Your task to perform on an android device: Search for logitech g pro on costco, select the first entry, and add it to the cart. Image 0: 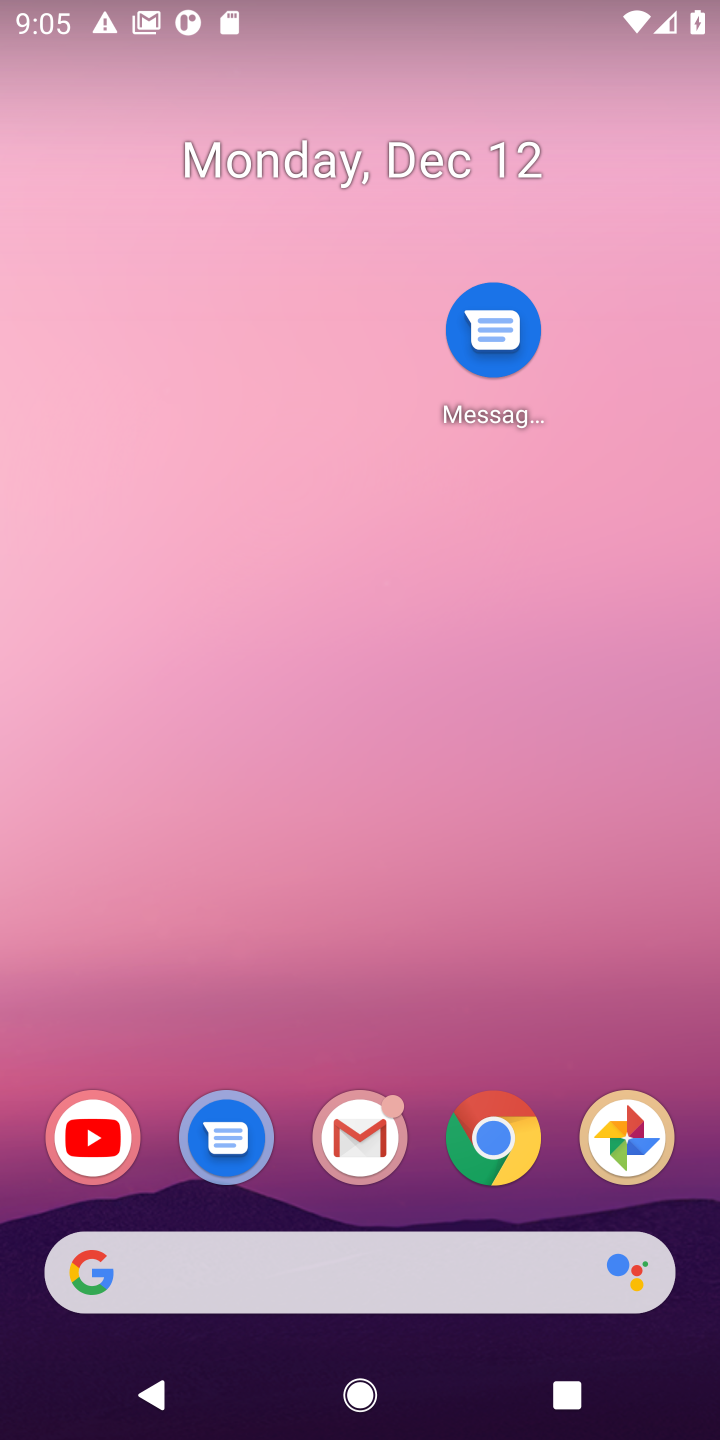
Step 0: drag from (352, 1282) to (511, 124)
Your task to perform on an android device: Search for logitech g pro on costco, select the first entry, and add it to the cart. Image 1: 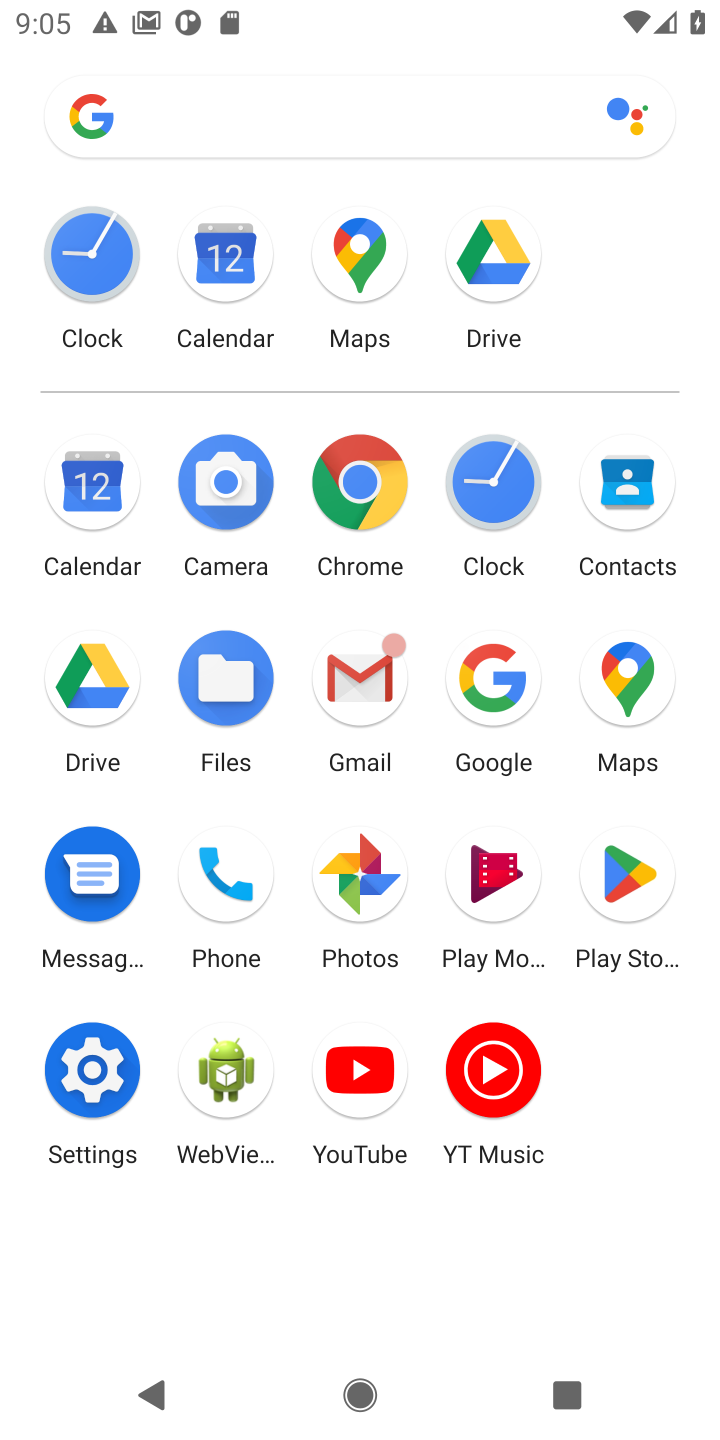
Step 1: click (485, 685)
Your task to perform on an android device: Search for logitech g pro on costco, select the first entry, and add it to the cart. Image 2: 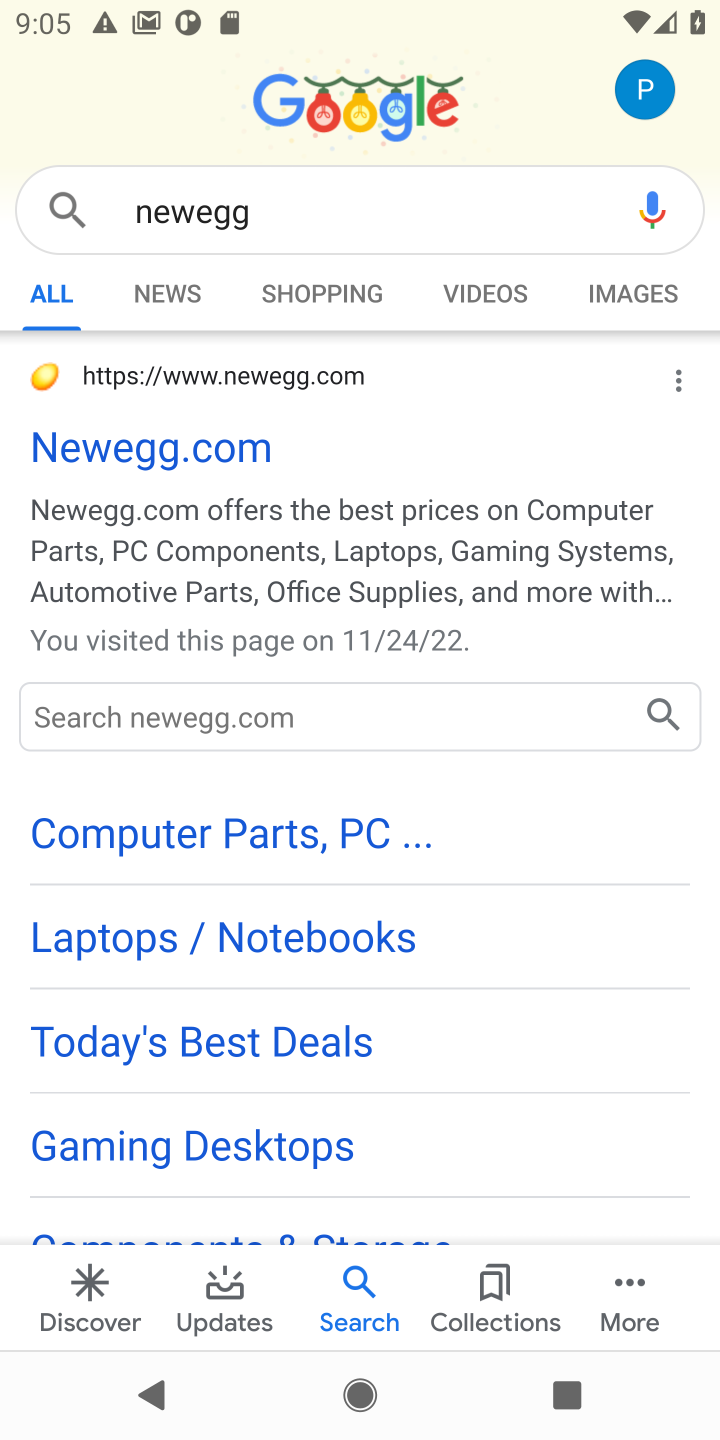
Step 2: click (241, 189)
Your task to perform on an android device: Search for logitech g pro on costco, select the first entry, and add it to the cart. Image 3: 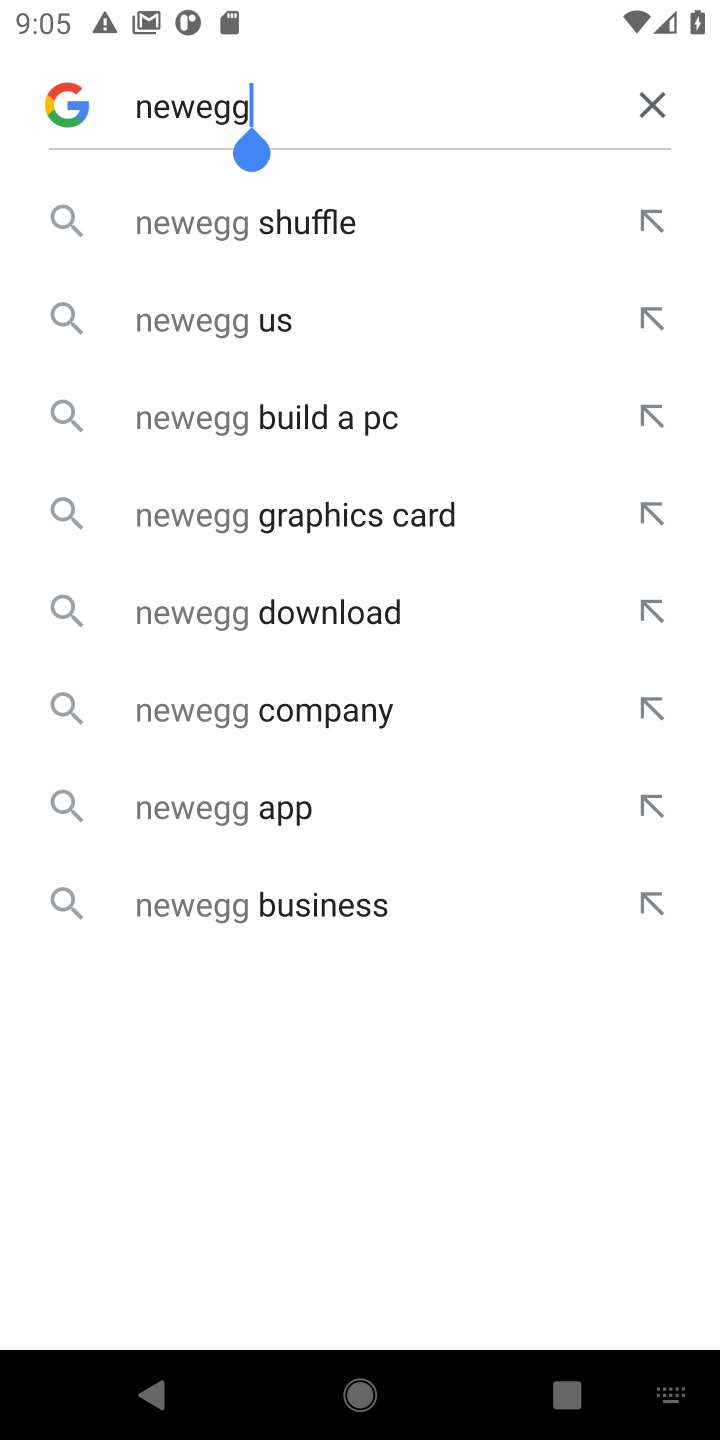
Step 3: click (664, 110)
Your task to perform on an android device: Search for logitech g pro on costco, select the first entry, and add it to the cart. Image 4: 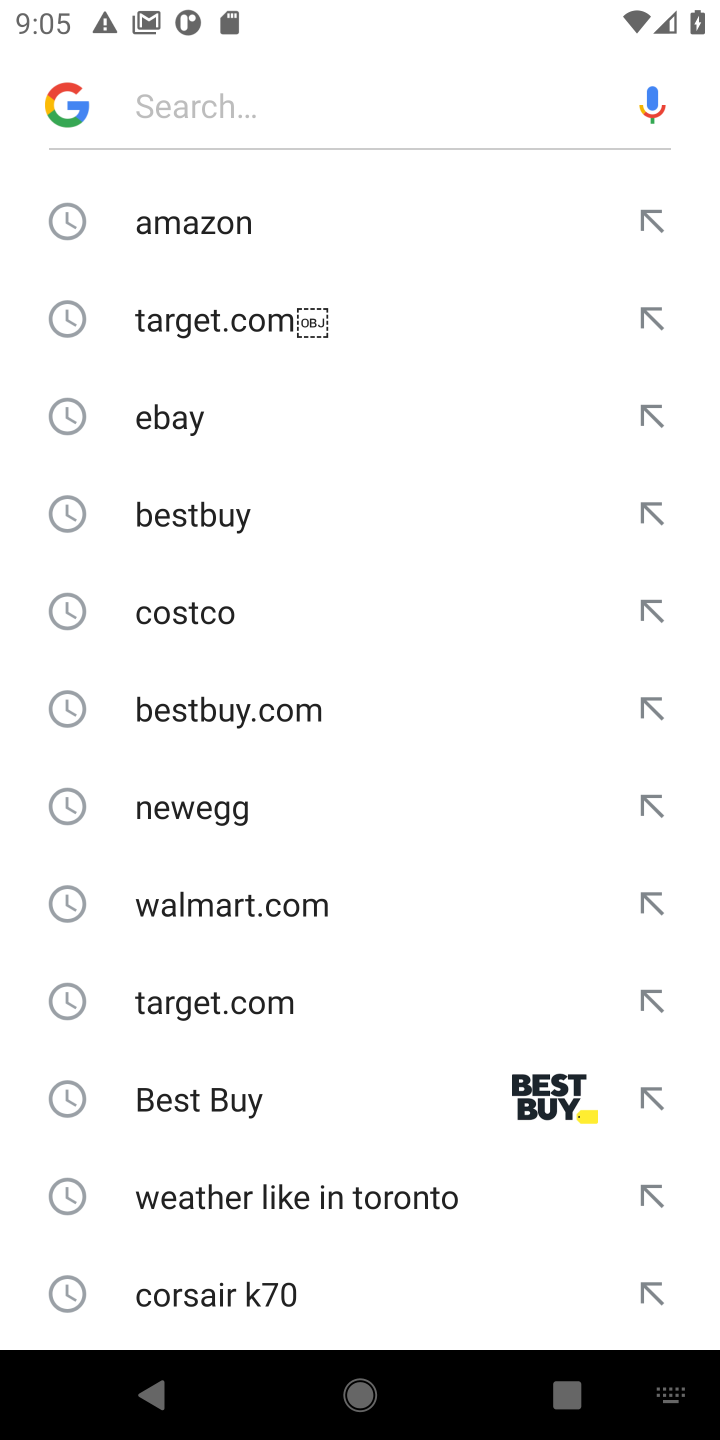
Step 4: click (187, 611)
Your task to perform on an android device: Search for logitech g pro on costco, select the first entry, and add it to the cart. Image 5: 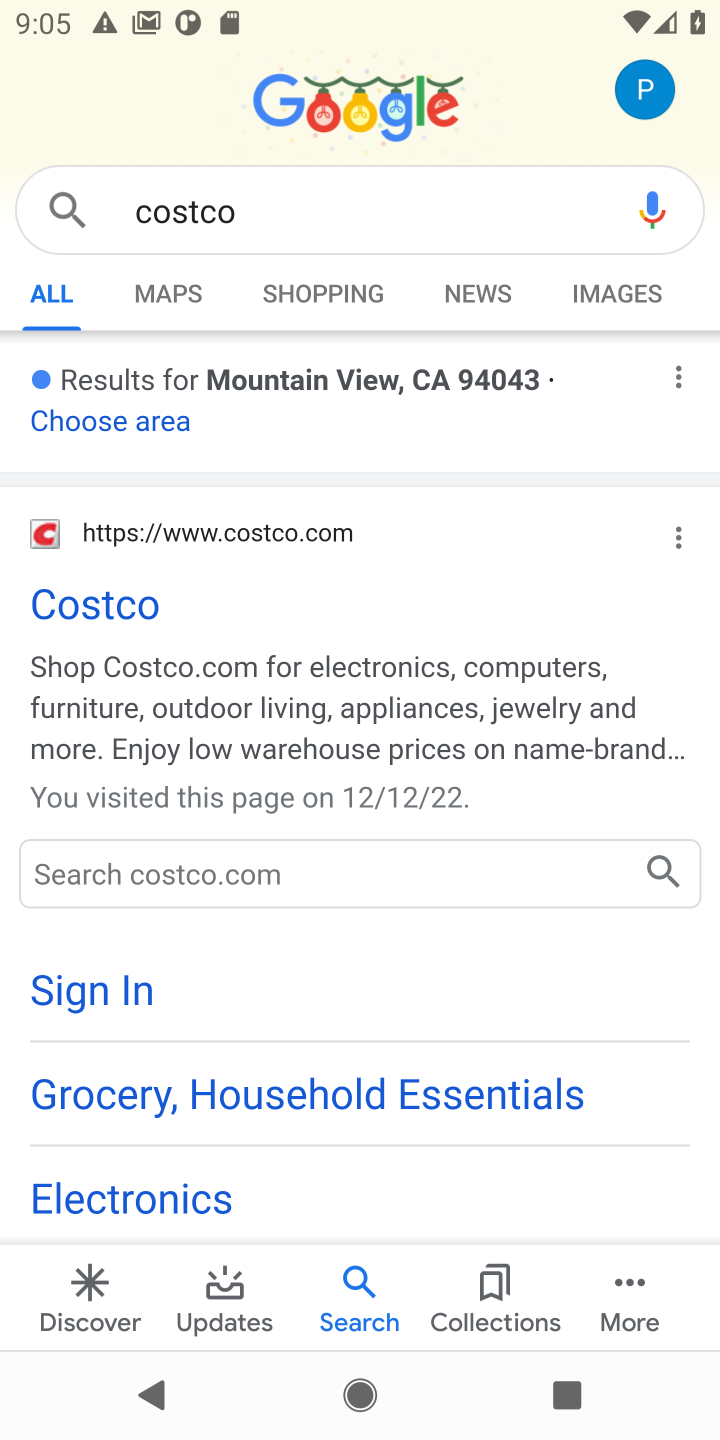
Step 5: click (103, 599)
Your task to perform on an android device: Search for logitech g pro on costco, select the first entry, and add it to the cart. Image 6: 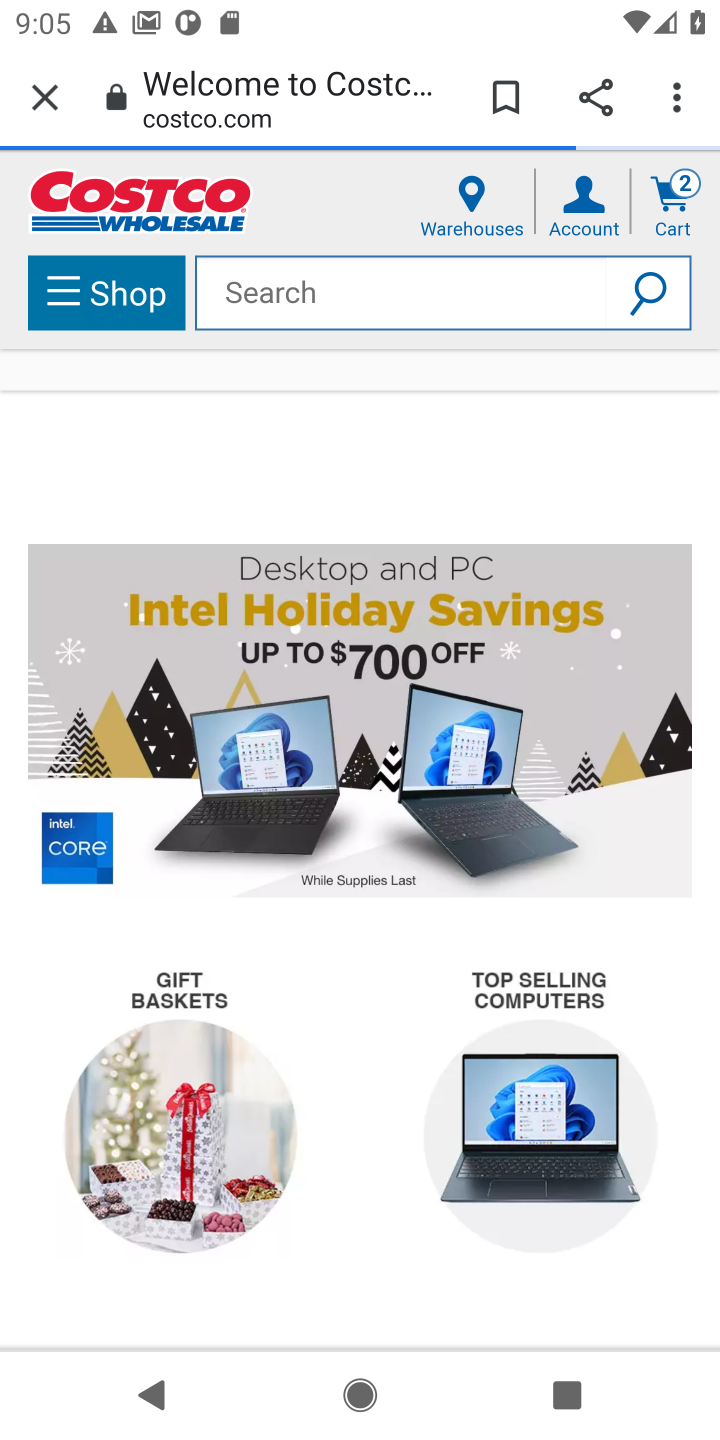
Step 6: click (302, 275)
Your task to perform on an android device: Search for logitech g pro on costco, select the first entry, and add it to the cart. Image 7: 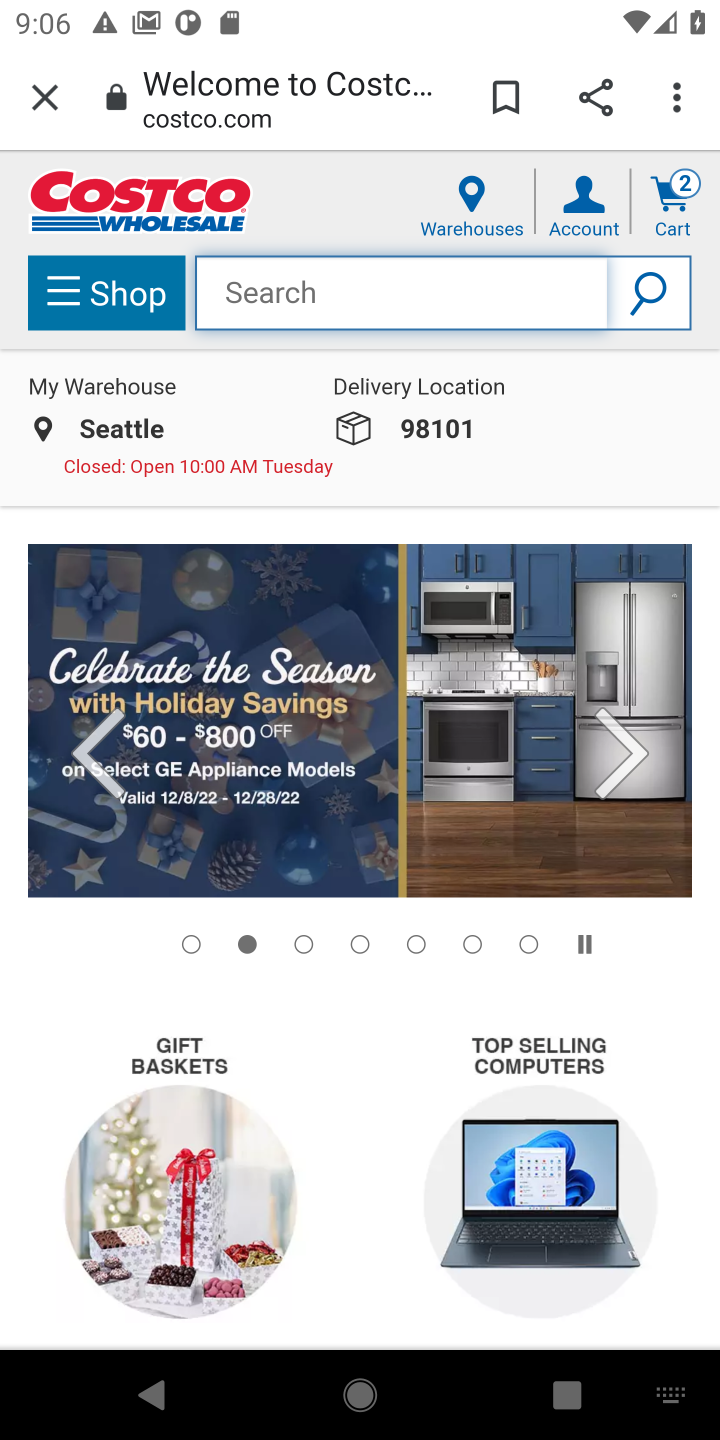
Step 7: type "logitech g pro"
Your task to perform on an android device: Search for logitech g pro on costco, select the first entry, and add it to the cart. Image 8: 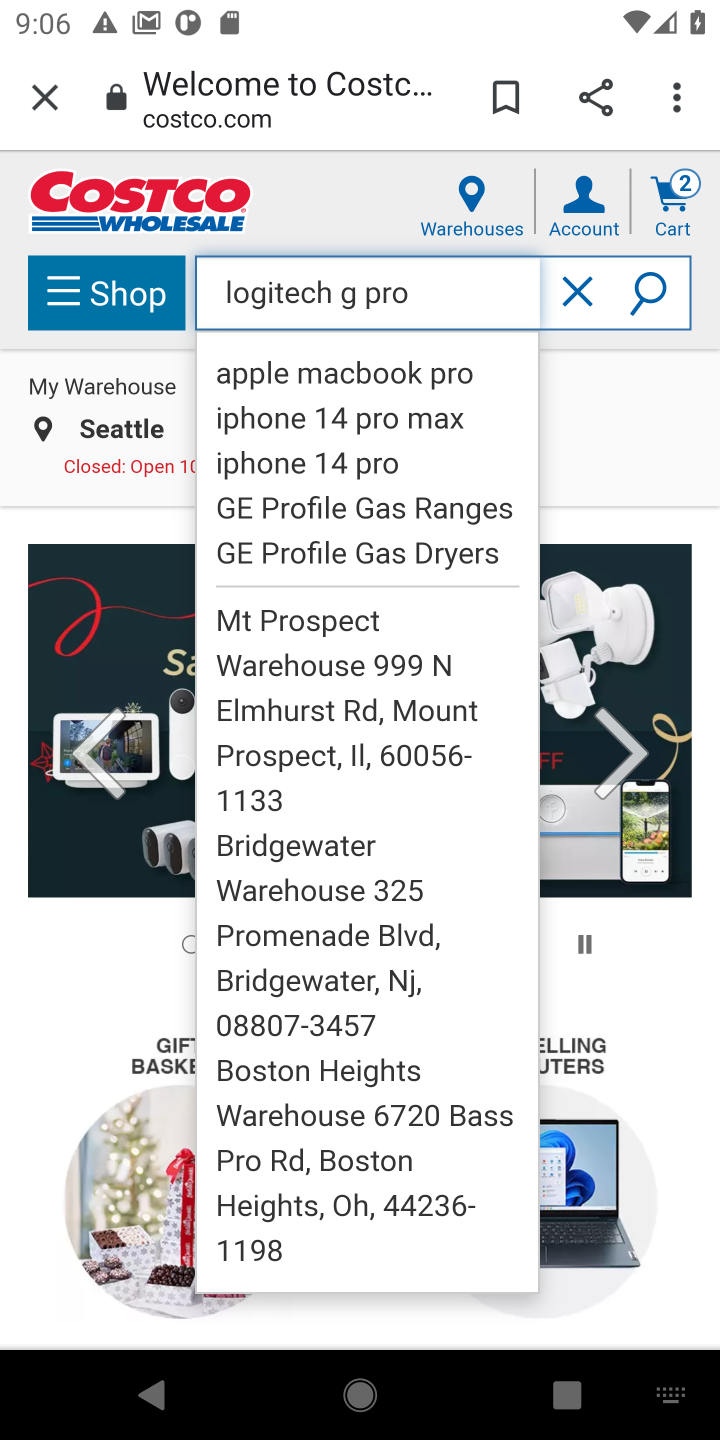
Step 8: click (630, 296)
Your task to perform on an android device: Search for logitech g pro on costco, select the first entry, and add it to the cart. Image 9: 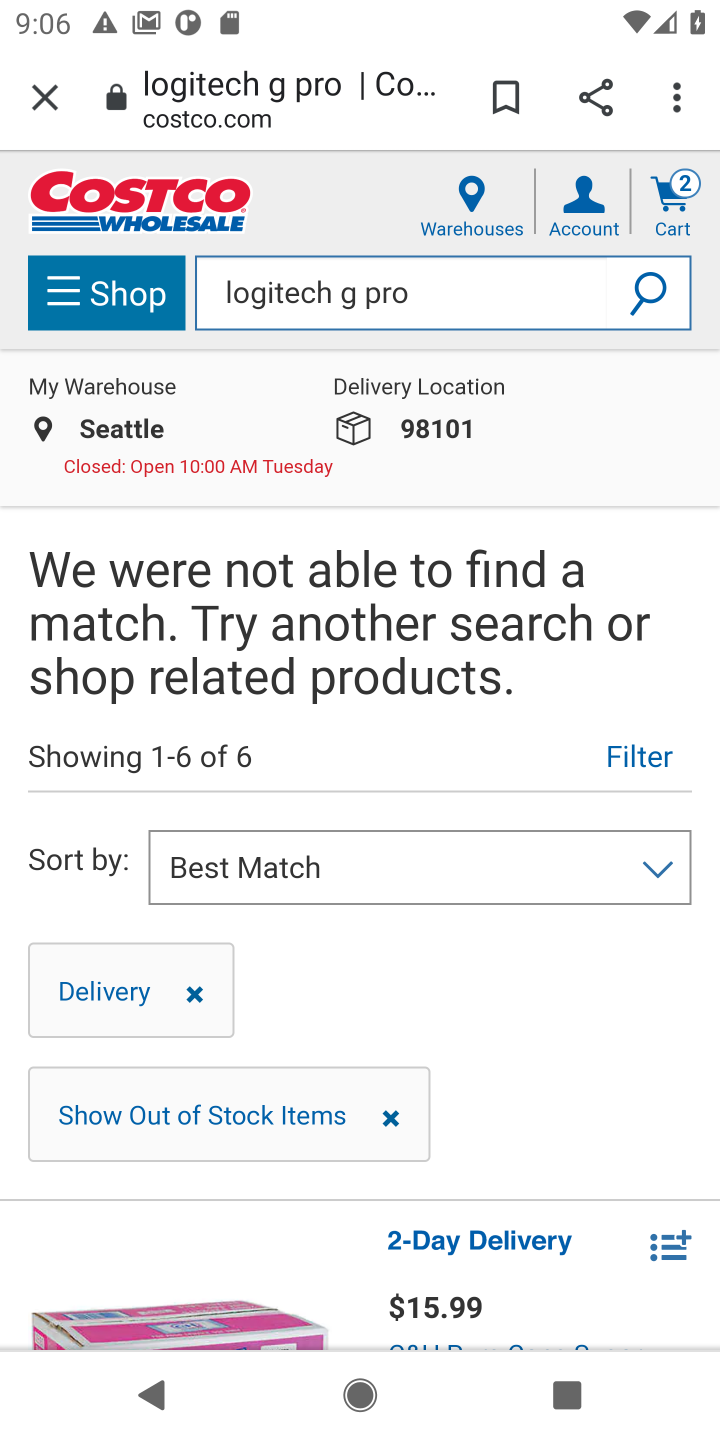
Step 9: drag from (424, 1089) to (462, 486)
Your task to perform on an android device: Search for logitech g pro on costco, select the first entry, and add it to the cart. Image 10: 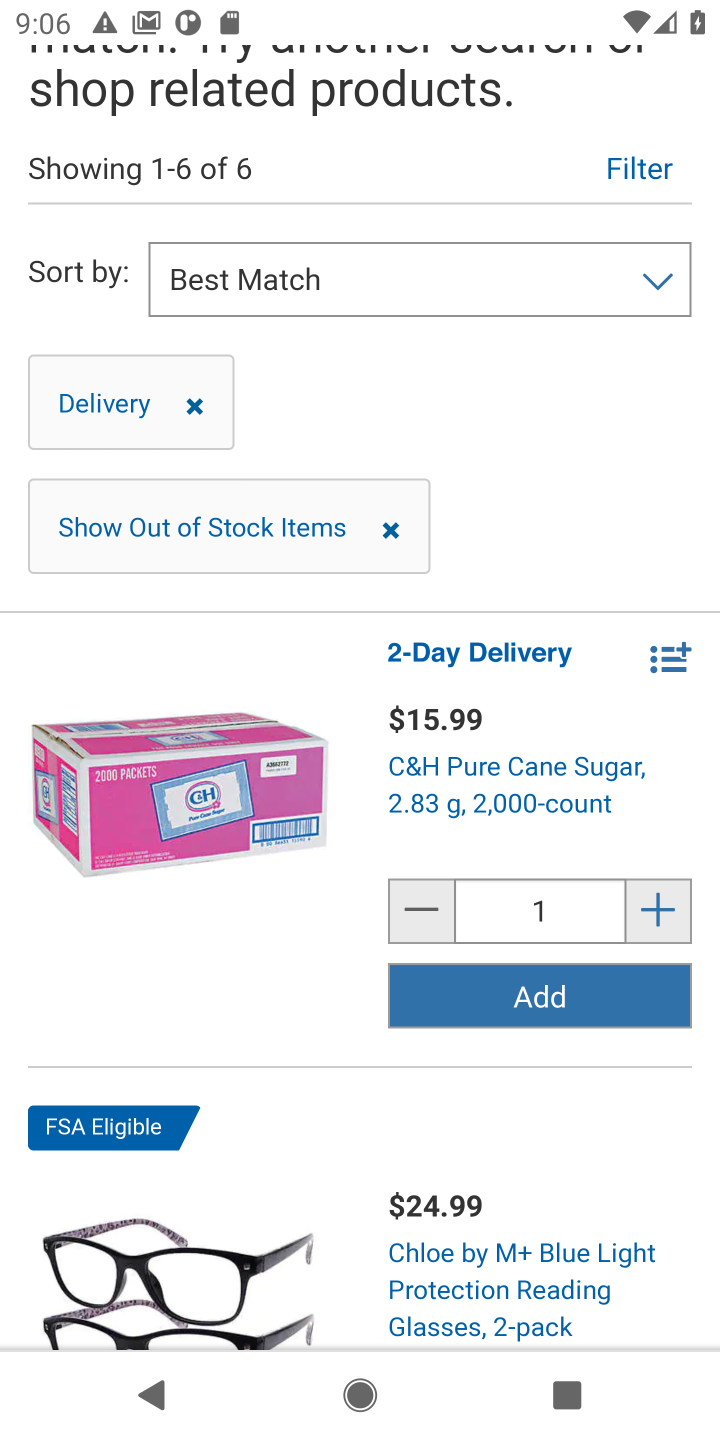
Step 10: click (547, 1005)
Your task to perform on an android device: Search for logitech g pro on costco, select the first entry, and add it to the cart. Image 11: 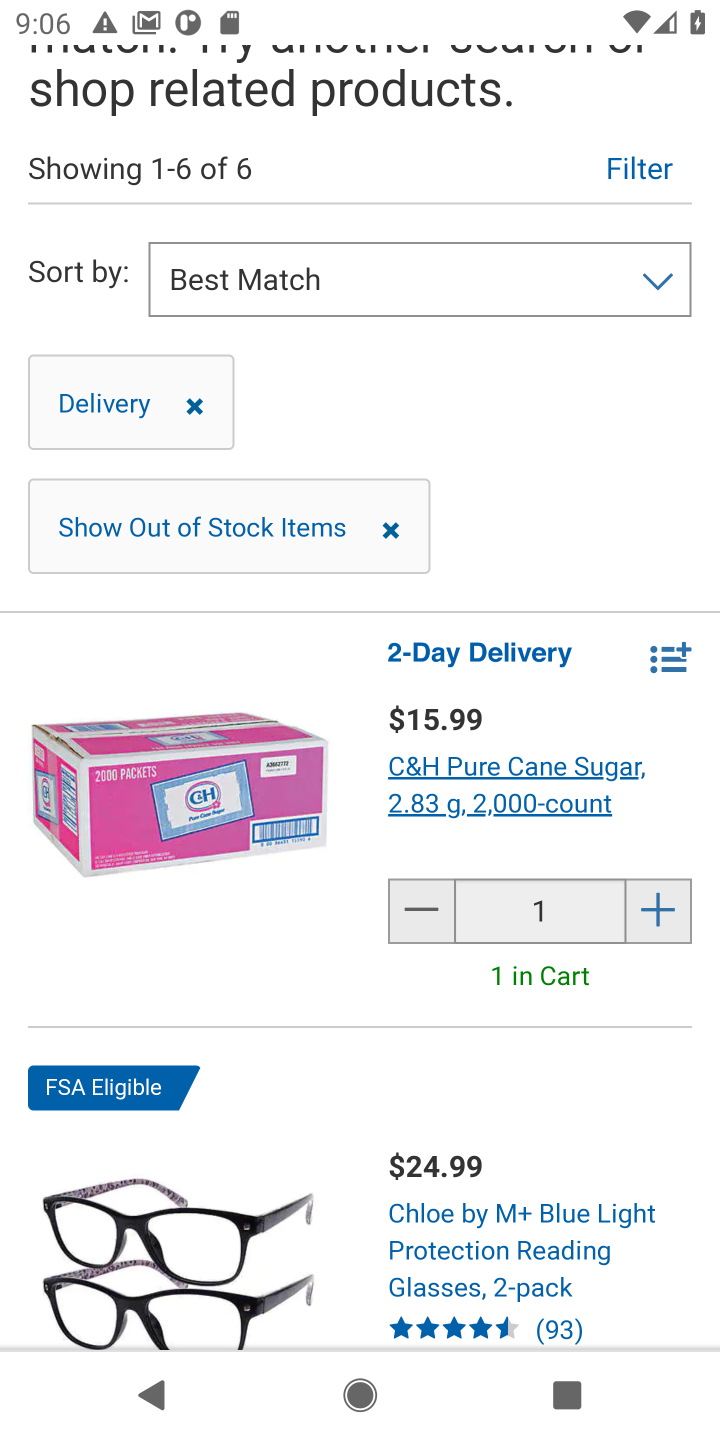
Step 11: task complete